Your task to perform on an android device: Open Amazon Image 0: 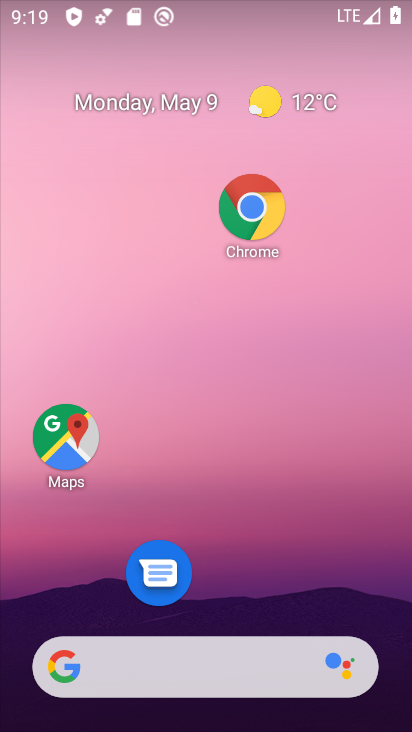
Step 0: drag from (247, 619) to (268, 285)
Your task to perform on an android device: Open Amazon Image 1: 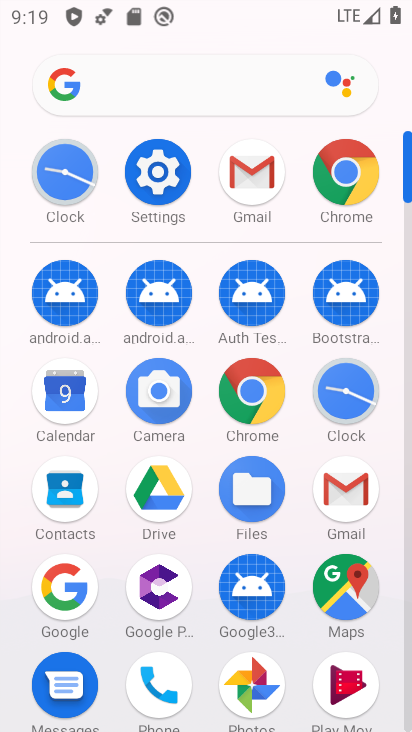
Step 1: click (344, 202)
Your task to perform on an android device: Open Amazon Image 2: 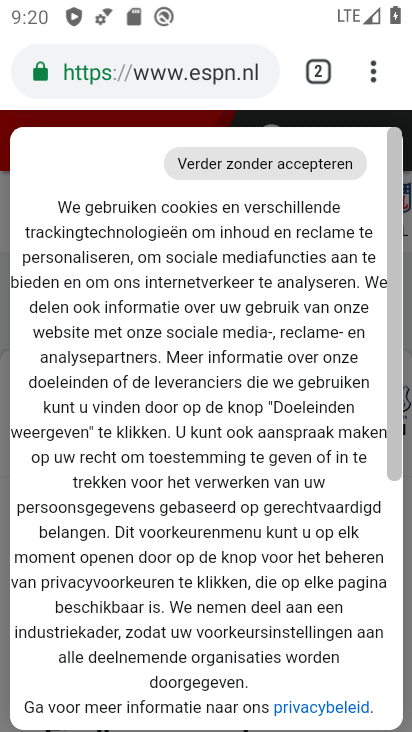
Step 2: click (242, 91)
Your task to perform on an android device: Open Amazon Image 3: 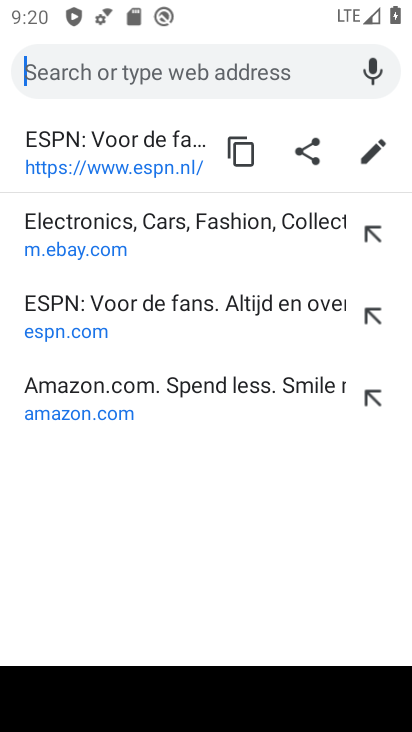
Step 3: click (198, 427)
Your task to perform on an android device: Open Amazon Image 4: 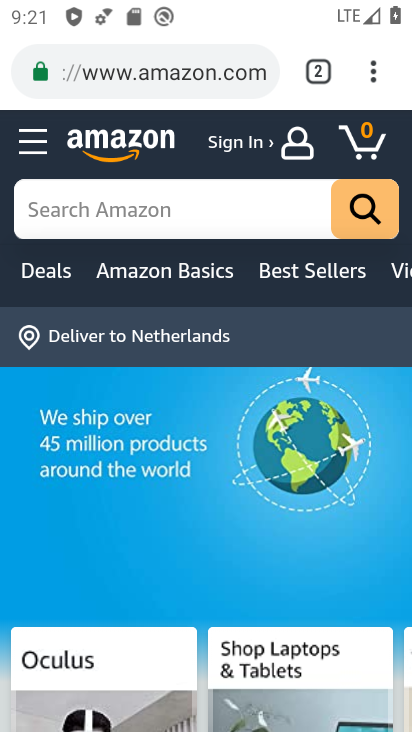
Step 4: task complete